Your task to perform on an android device: turn off location history Image 0: 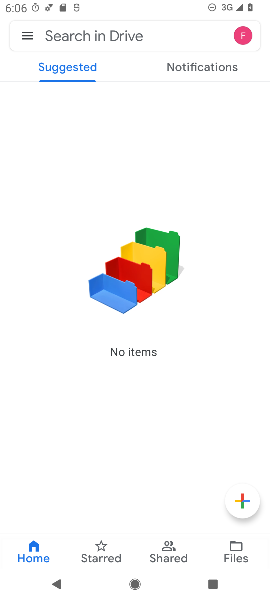
Step 0: press home button
Your task to perform on an android device: turn off location history Image 1: 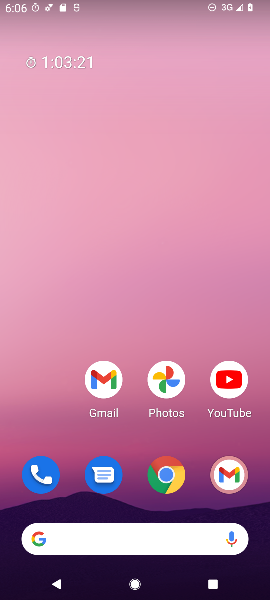
Step 1: drag from (59, 446) to (69, 163)
Your task to perform on an android device: turn off location history Image 2: 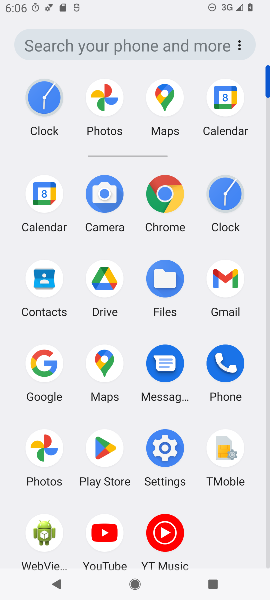
Step 2: click (161, 449)
Your task to perform on an android device: turn off location history Image 3: 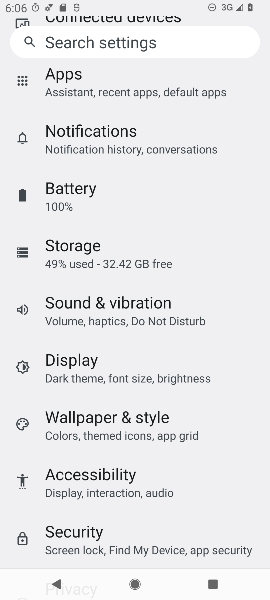
Step 3: drag from (234, 453) to (236, 364)
Your task to perform on an android device: turn off location history Image 4: 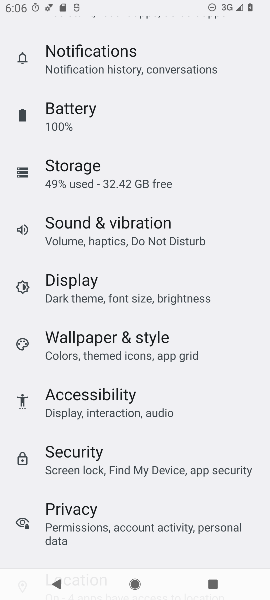
Step 4: drag from (229, 451) to (232, 369)
Your task to perform on an android device: turn off location history Image 5: 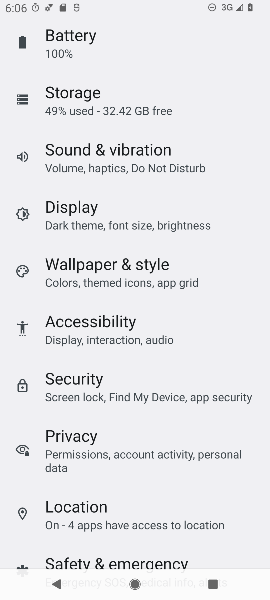
Step 5: drag from (232, 500) to (232, 388)
Your task to perform on an android device: turn off location history Image 6: 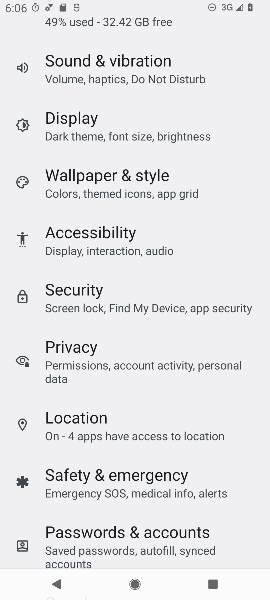
Step 6: drag from (227, 520) to (231, 430)
Your task to perform on an android device: turn off location history Image 7: 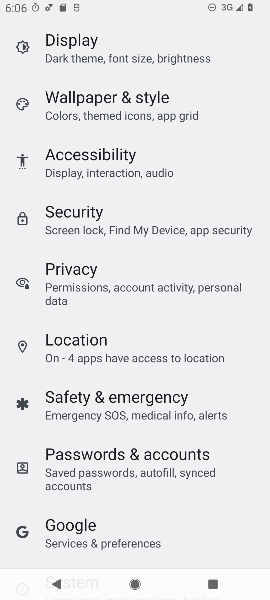
Step 7: drag from (231, 526) to (237, 430)
Your task to perform on an android device: turn off location history Image 8: 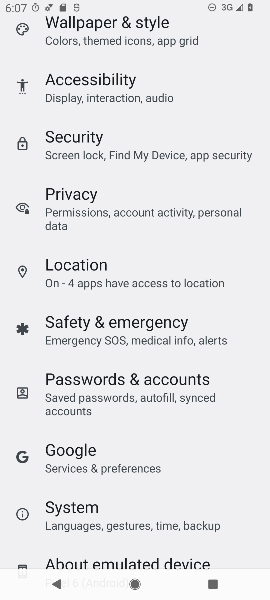
Step 8: drag from (239, 518) to (236, 423)
Your task to perform on an android device: turn off location history Image 9: 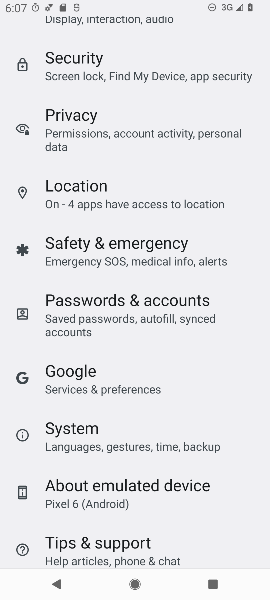
Step 9: drag from (232, 523) to (229, 386)
Your task to perform on an android device: turn off location history Image 10: 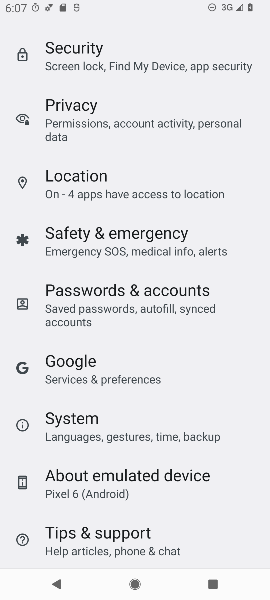
Step 10: drag from (234, 299) to (236, 376)
Your task to perform on an android device: turn off location history Image 11: 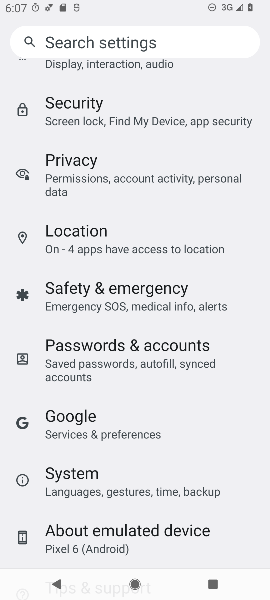
Step 11: drag from (241, 267) to (243, 351)
Your task to perform on an android device: turn off location history Image 12: 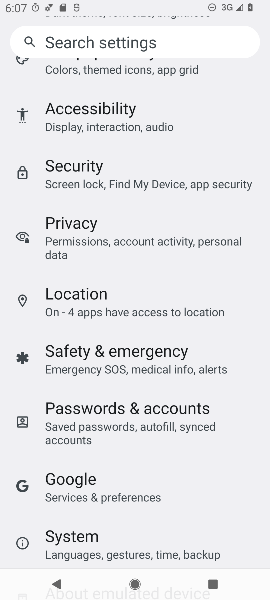
Step 12: click (238, 307)
Your task to perform on an android device: turn off location history Image 13: 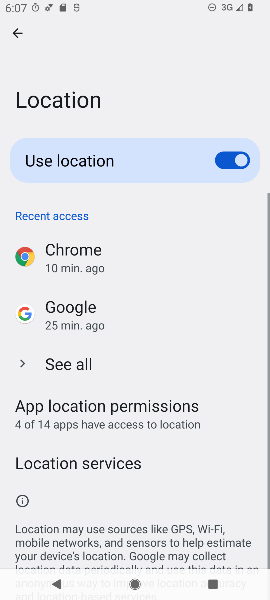
Step 13: click (162, 464)
Your task to perform on an android device: turn off location history Image 14: 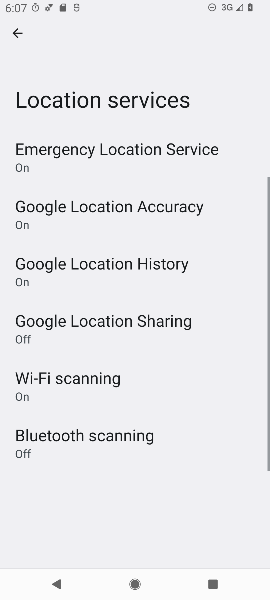
Step 14: click (119, 276)
Your task to perform on an android device: turn off location history Image 15: 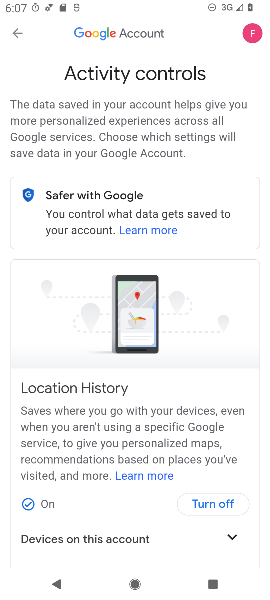
Step 15: click (205, 500)
Your task to perform on an android device: turn off location history Image 16: 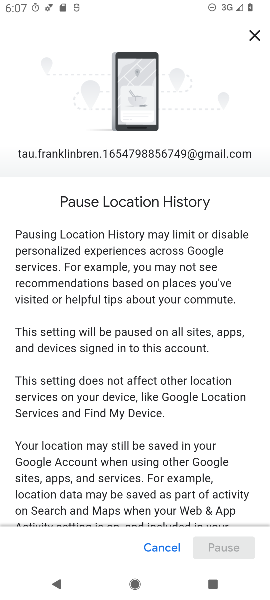
Step 16: drag from (147, 440) to (147, 358)
Your task to perform on an android device: turn off location history Image 17: 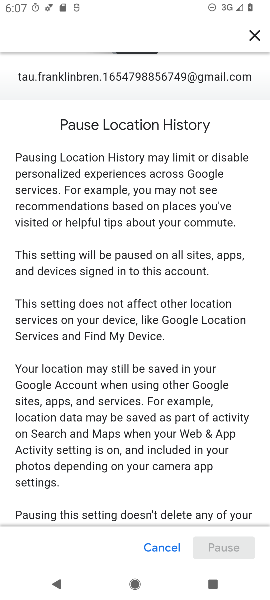
Step 17: drag from (136, 460) to (148, 384)
Your task to perform on an android device: turn off location history Image 18: 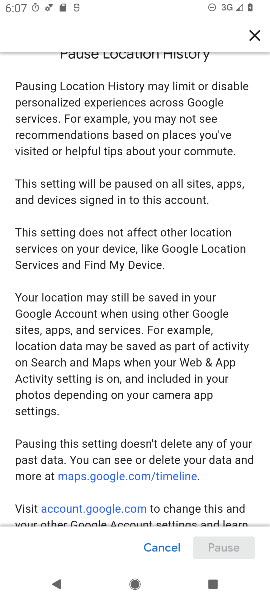
Step 18: drag from (150, 488) to (154, 410)
Your task to perform on an android device: turn off location history Image 19: 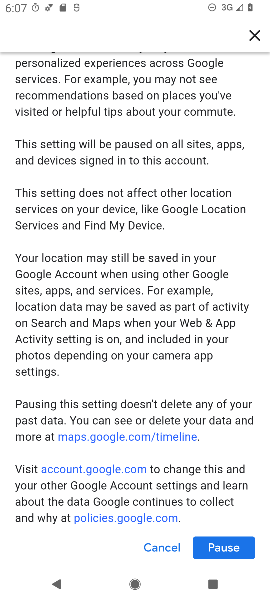
Step 19: click (220, 548)
Your task to perform on an android device: turn off location history Image 20: 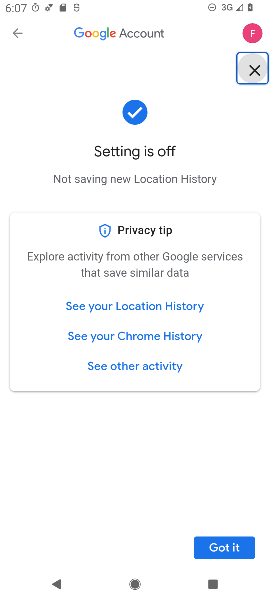
Step 20: task complete